Your task to perform on an android device: Go to Google Image 0: 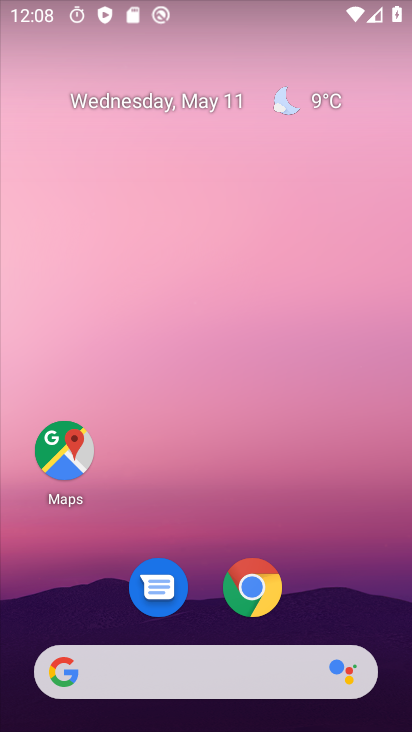
Step 0: drag from (298, 585) to (53, 27)
Your task to perform on an android device: Go to Google Image 1: 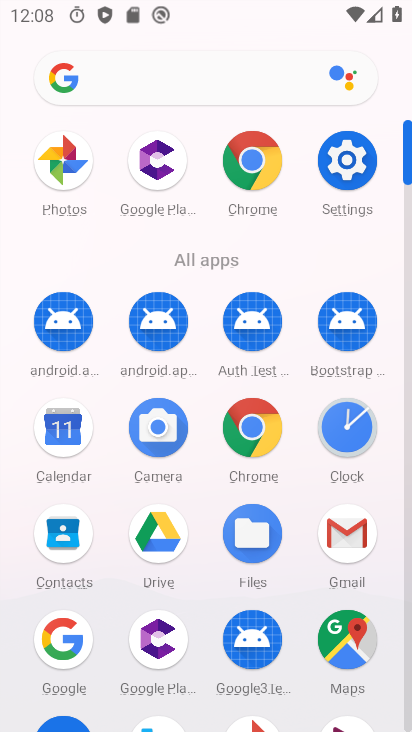
Step 1: click (63, 641)
Your task to perform on an android device: Go to Google Image 2: 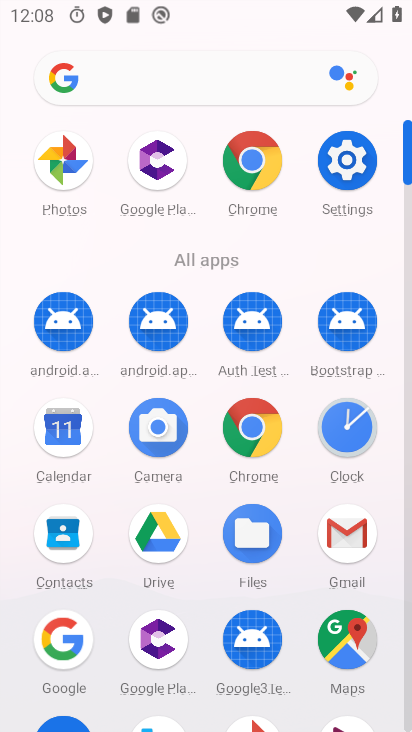
Step 2: click (63, 641)
Your task to perform on an android device: Go to Google Image 3: 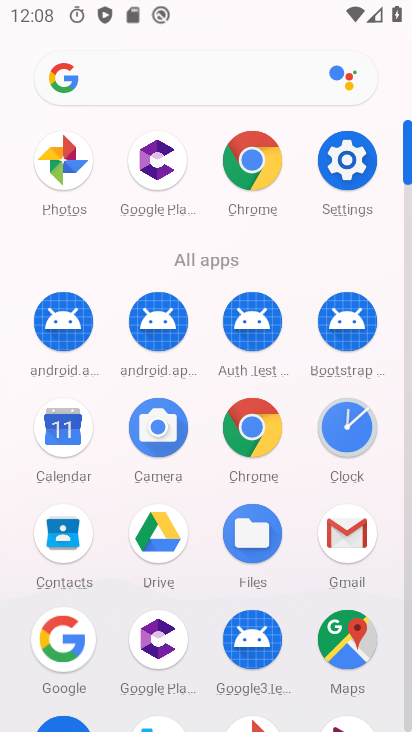
Step 3: click (63, 641)
Your task to perform on an android device: Go to Google Image 4: 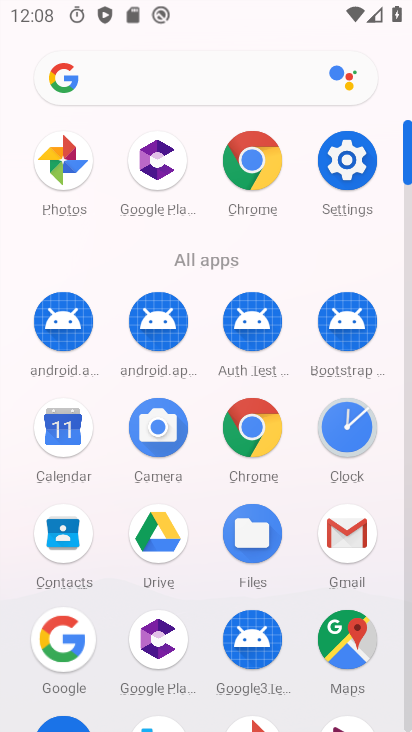
Step 4: click (59, 638)
Your task to perform on an android device: Go to Google Image 5: 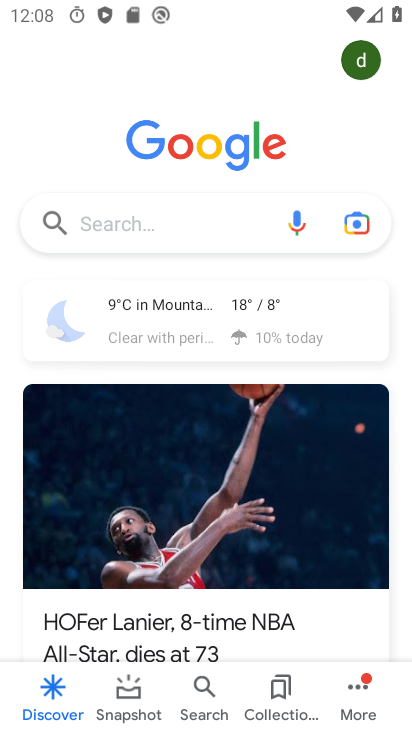
Step 5: task complete